Your task to perform on an android device: Open Google Maps Image 0: 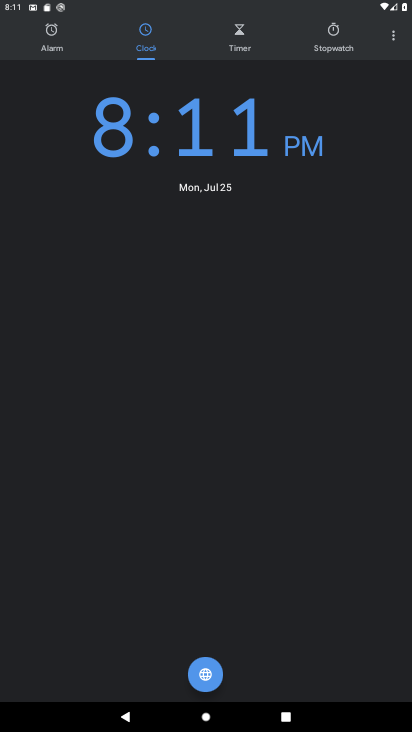
Step 0: press home button
Your task to perform on an android device: Open Google Maps Image 1: 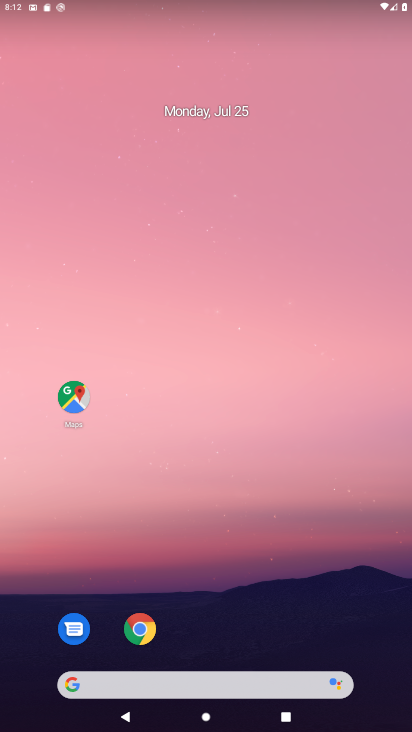
Step 1: click (71, 397)
Your task to perform on an android device: Open Google Maps Image 2: 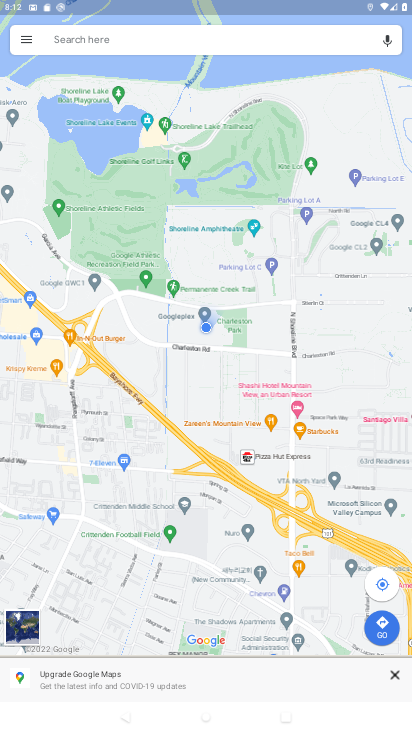
Step 2: task complete